Your task to perform on an android device: Show me the alarms in the clock app Image 0: 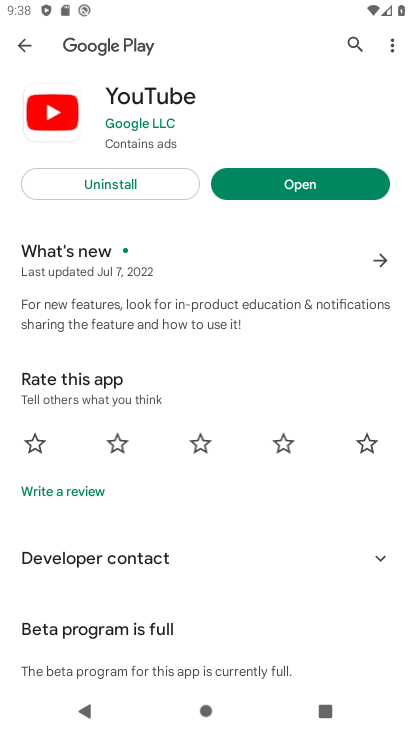
Step 0: press home button
Your task to perform on an android device: Show me the alarms in the clock app Image 1: 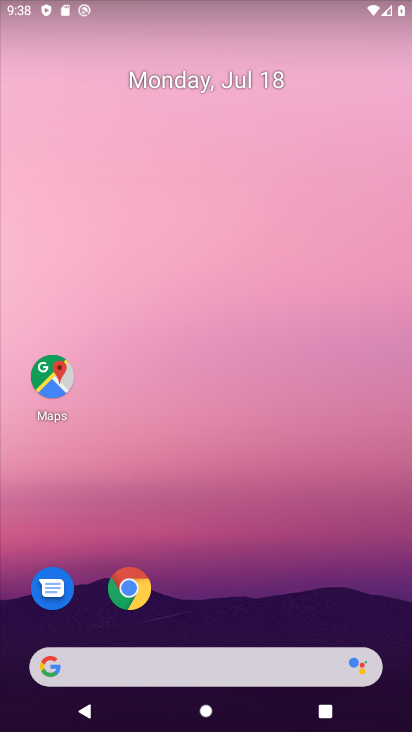
Step 1: drag from (393, 613) to (386, 21)
Your task to perform on an android device: Show me the alarms in the clock app Image 2: 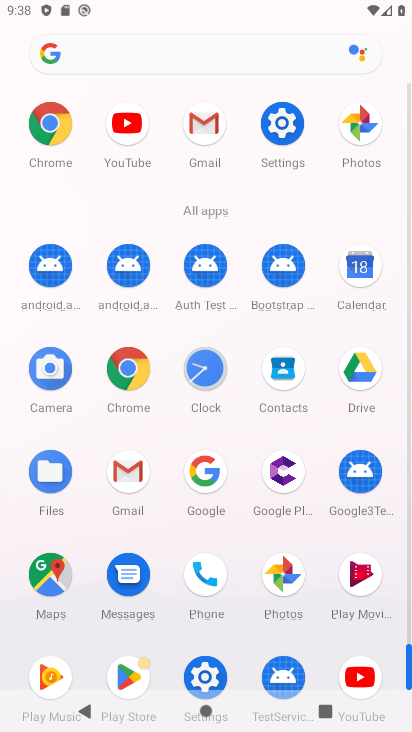
Step 2: click (204, 377)
Your task to perform on an android device: Show me the alarms in the clock app Image 3: 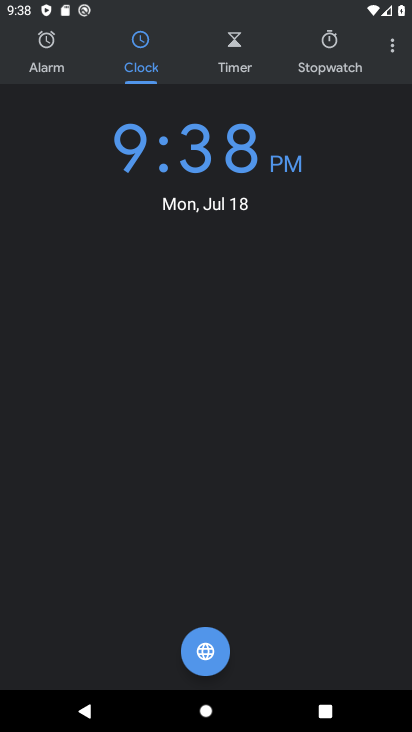
Step 3: click (59, 70)
Your task to perform on an android device: Show me the alarms in the clock app Image 4: 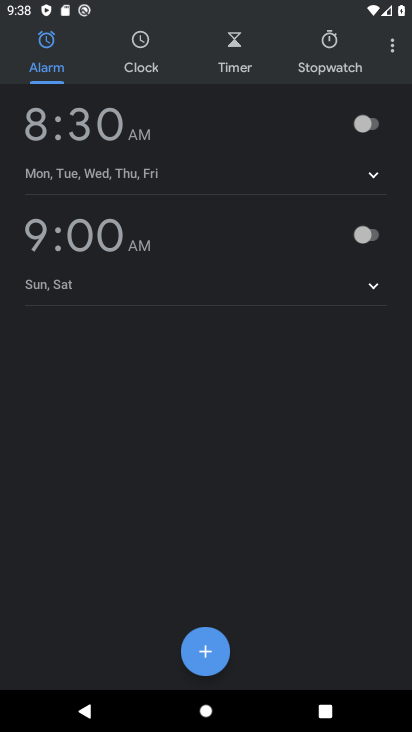
Step 4: task complete